Your task to perform on an android device: Show me productivity apps on the Play Store Image 0: 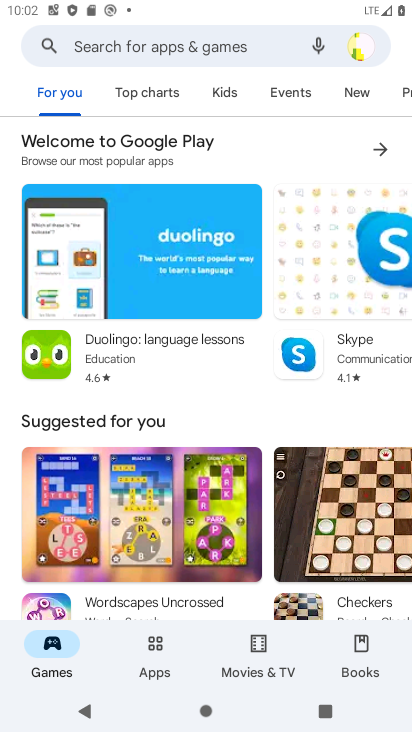
Step 0: click (146, 650)
Your task to perform on an android device: Show me productivity apps on the Play Store Image 1: 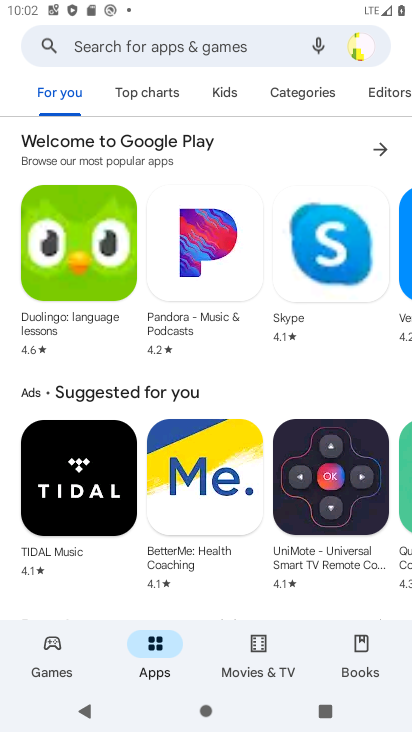
Step 1: click (294, 93)
Your task to perform on an android device: Show me productivity apps on the Play Store Image 2: 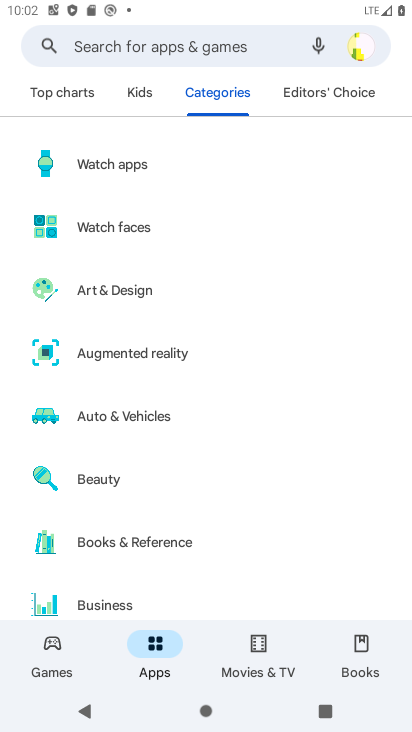
Step 2: drag from (177, 543) to (284, 255)
Your task to perform on an android device: Show me productivity apps on the Play Store Image 3: 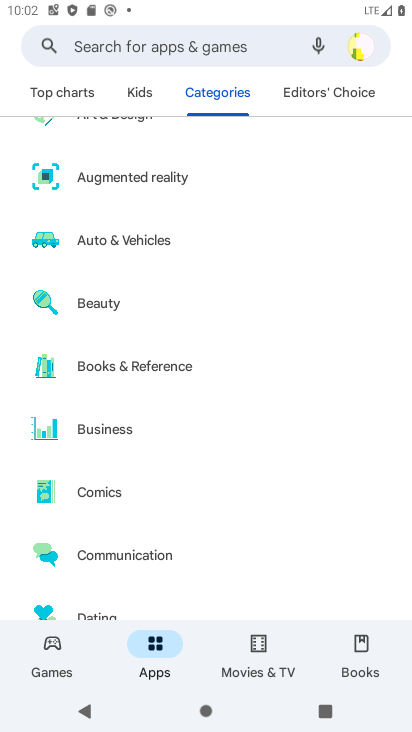
Step 3: drag from (276, 460) to (238, 186)
Your task to perform on an android device: Show me productivity apps on the Play Store Image 4: 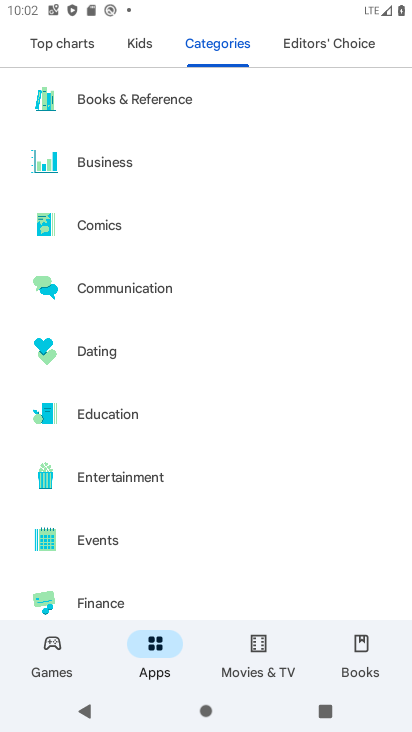
Step 4: drag from (203, 505) to (206, 276)
Your task to perform on an android device: Show me productivity apps on the Play Store Image 5: 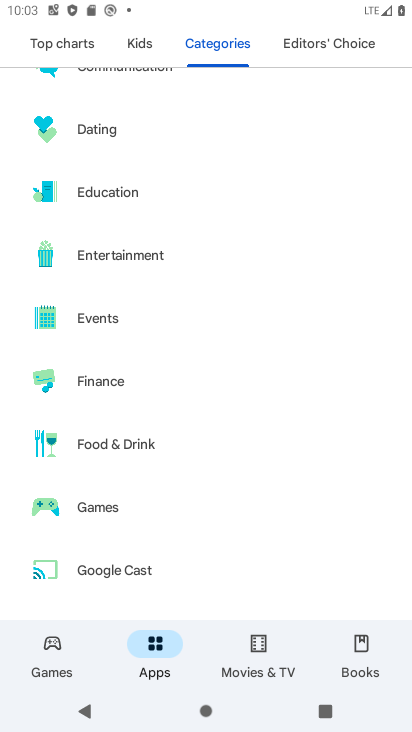
Step 5: drag from (192, 520) to (213, 228)
Your task to perform on an android device: Show me productivity apps on the Play Store Image 6: 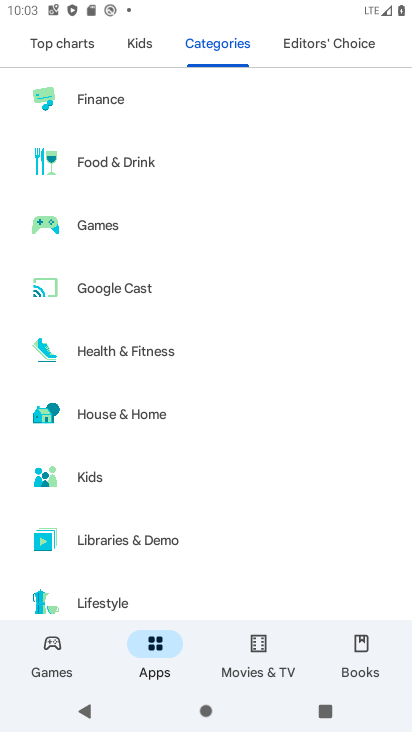
Step 6: drag from (233, 461) to (246, 149)
Your task to perform on an android device: Show me productivity apps on the Play Store Image 7: 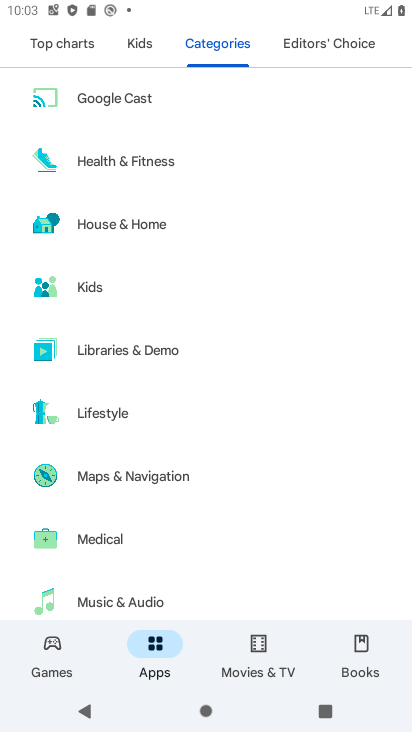
Step 7: drag from (246, 458) to (245, 235)
Your task to perform on an android device: Show me productivity apps on the Play Store Image 8: 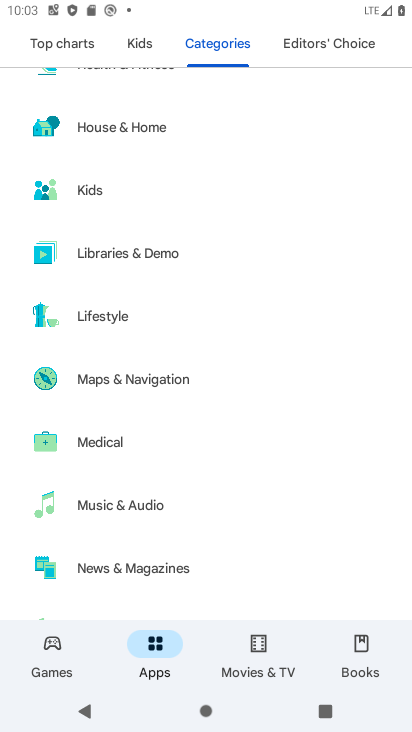
Step 8: drag from (178, 508) to (194, 192)
Your task to perform on an android device: Show me productivity apps on the Play Store Image 9: 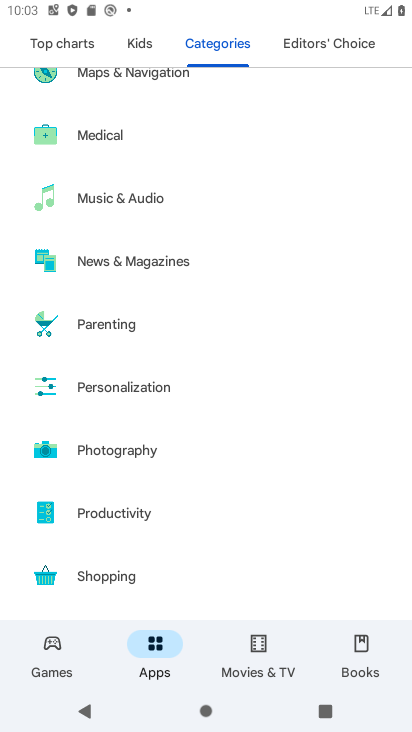
Step 9: drag from (236, 484) to (231, 206)
Your task to perform on an android device: Show me productivity apps on the Play Store Image 10: 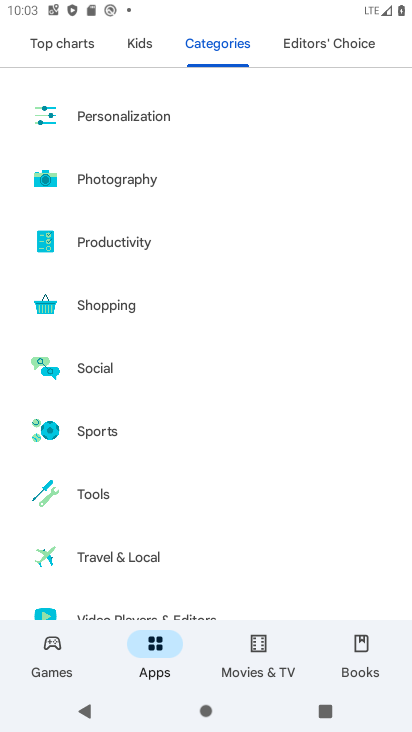
Step 10: click (159, 241)
Your task to perform on an android device: Show me productivity apps on the Play Store Image 11: 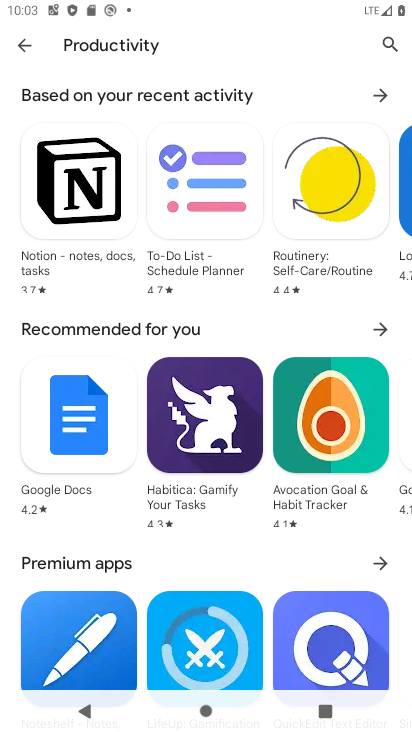
Step 11: task complete